Your task to perform on an android device: open app "Adobe Express: Graphic Design" (install if not already installed), go to login, and select forgot password Image 0: 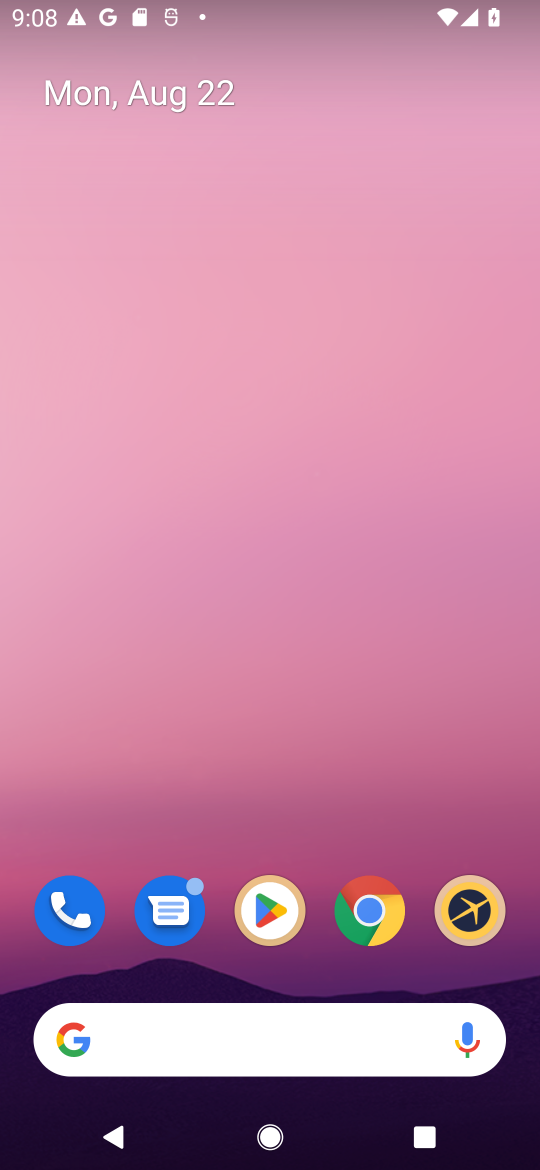
Step 0: click (265, 880)
Your task to perform on an android device: open app "Adobe Express: Graphic Design" (install if not already installed), go to login, and select forgot password Image 1: 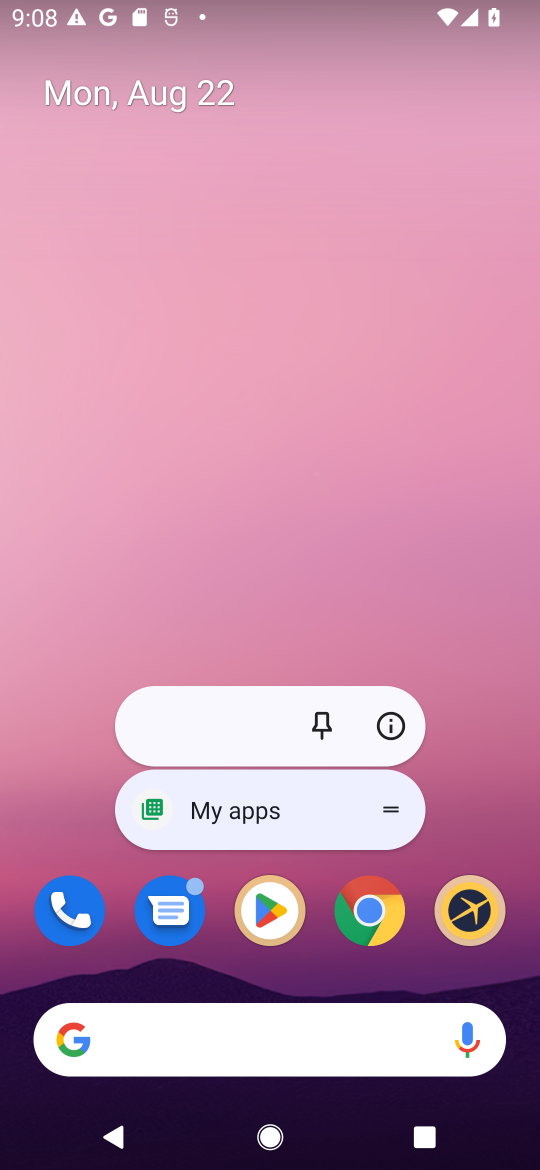
Step 1: click (258, 908)
Your task to perform on an android device: open app "Adobe Express: Graphic Design" (install if not already installed), go to login, and select forgot password Image 2: 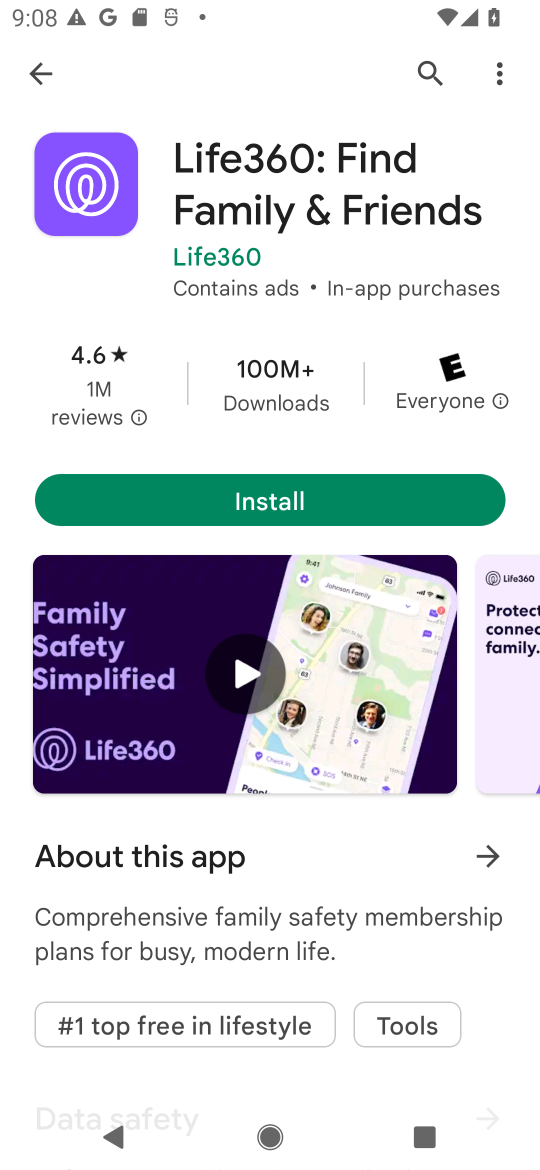
Step 2: click (421, 92)
Your task to perform on an android device: open app "Adobe Express: Graphic Design" (install if not already installed), go to login, and select forgot password Image 3: 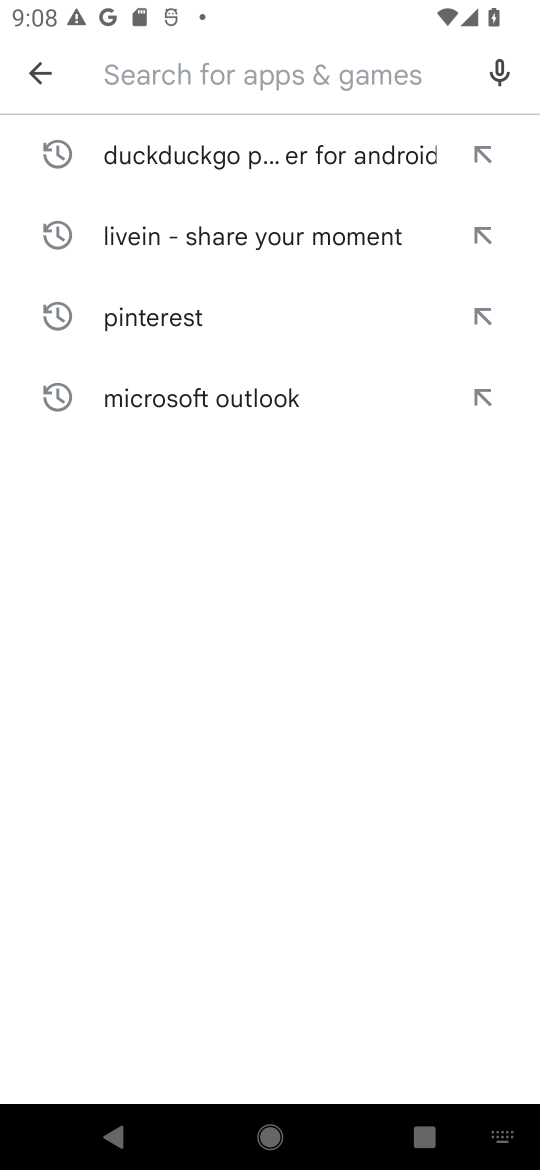
Step 3: type "Adobe Express: Graphic Design"
Your task to perform on an android device: open app "Adobe Express: Graphic Design" (install if not already installed), go to login, and select forgot password Image 4: 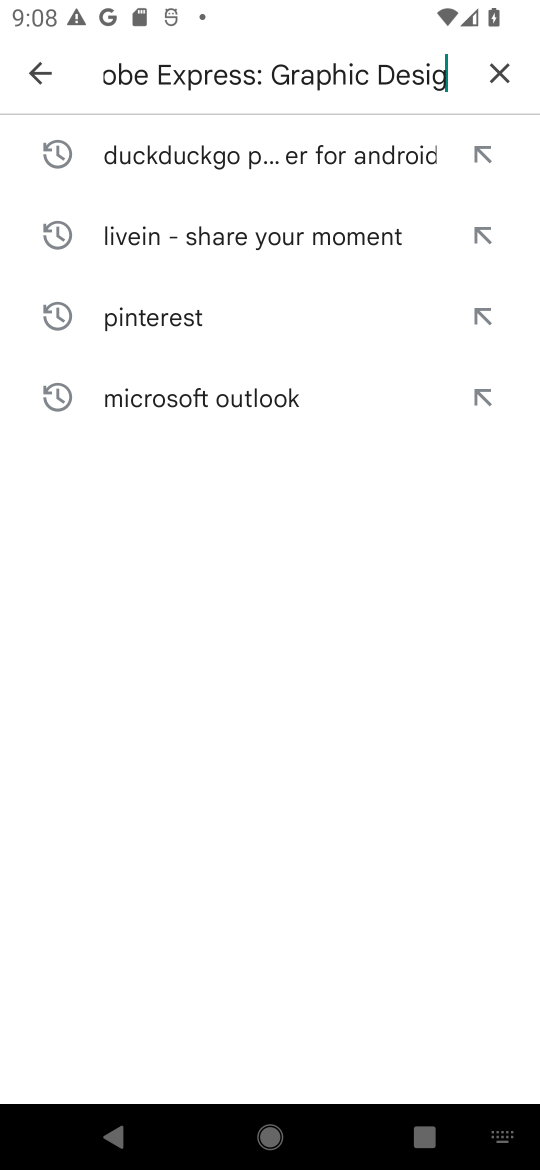
Step 4: type ""
Your task to perform on an android device: open app "Adobe Express: Graphic Design" (install if not already installed), go to login, and select forgot password Image 5: 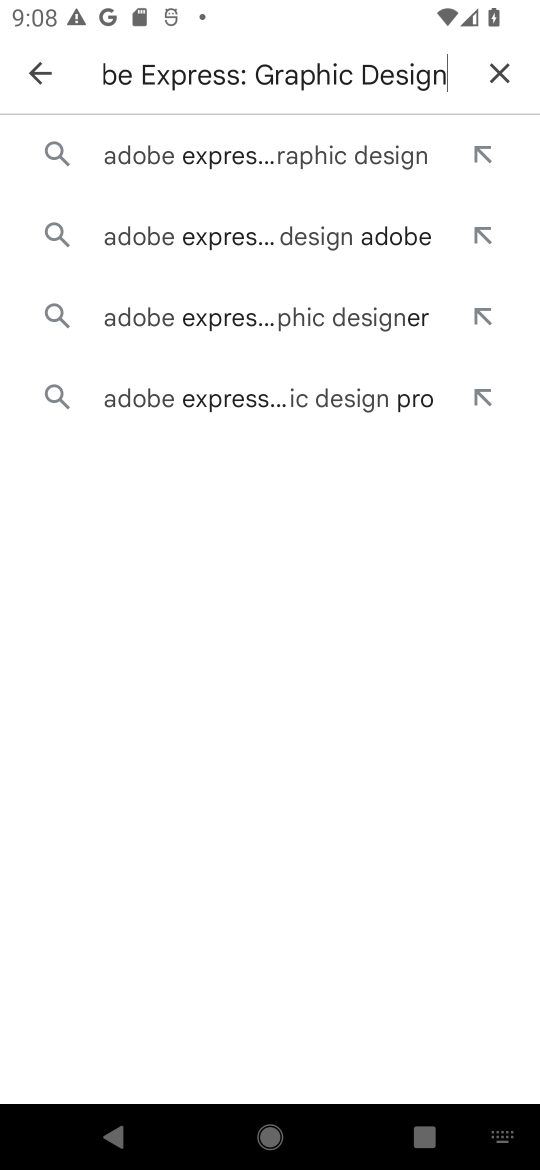
Step 5: click (253, 162)
Your task to perform on an android device: open app "Adobe Express: Graphic Design" (install if not already installed), go to login, and select forgot password Image 6: 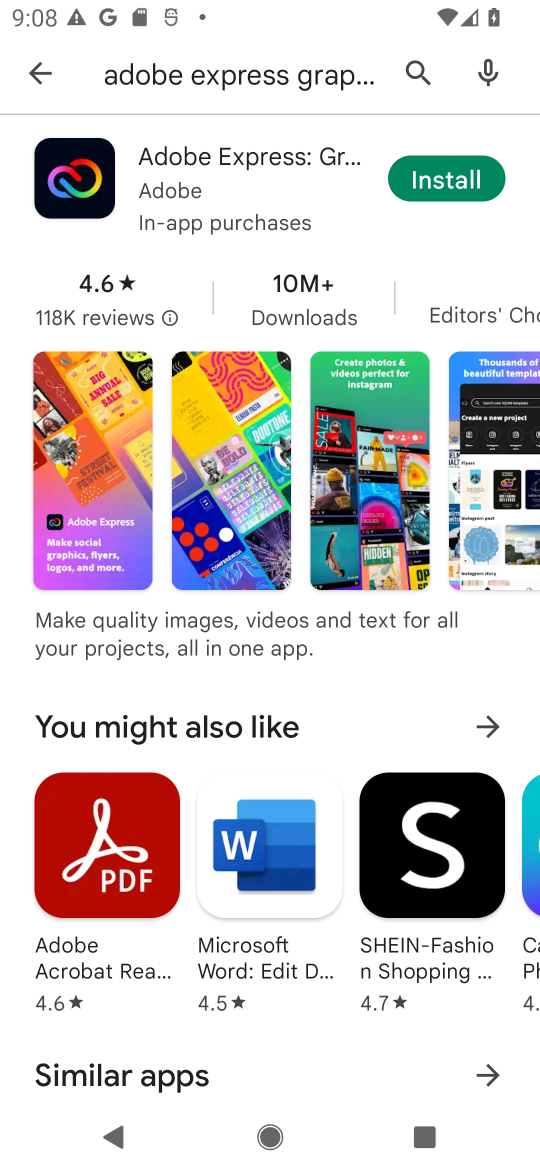
Step 6: click (409, 173)
Your task to perform on an android device: open app "Adobe Express: Graphic Design" (install if not already installed), go to login, and select forgot password Image 7: 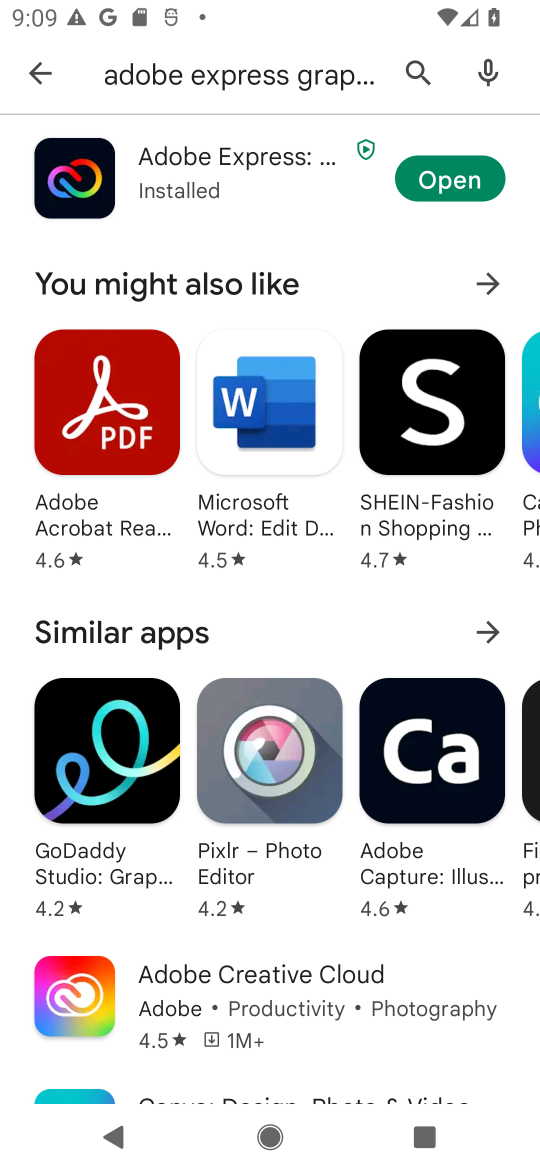
Step 7: click (434, 177)
Your task to perform on an android device: open app "Adobe Express: Graphic Design" (install if not already installed), go to login, and select forgot password Image 8: 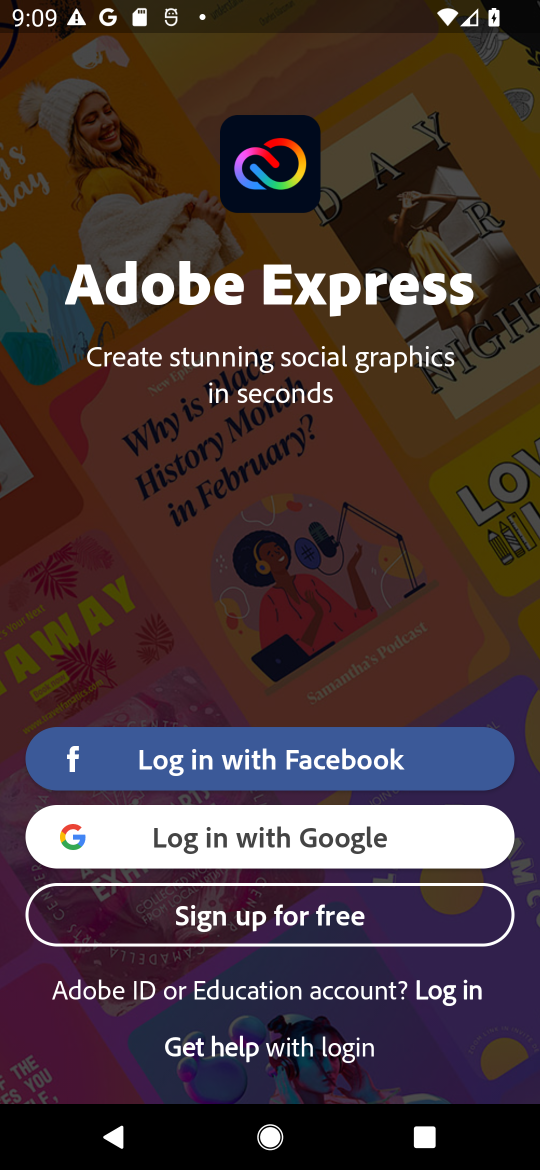
Step 8: task complete